Your task to perform on an android device: What's on my calendar tomorrow? Image 0: 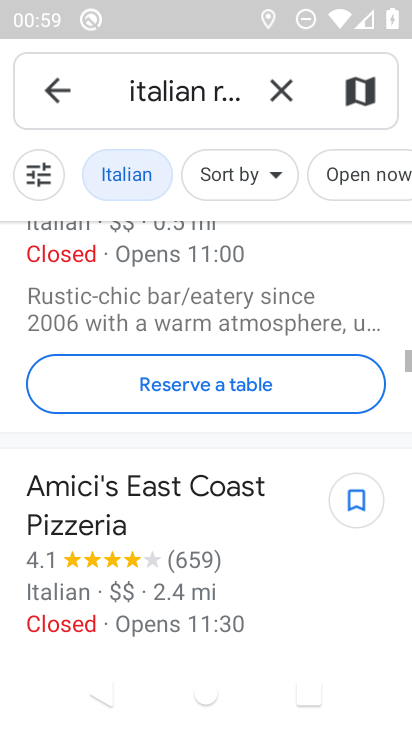
Step 0: drag from (219, 535) to (296, 38)
Your task to perform on an android device: What's on my calendar tomorrow? Image 1: 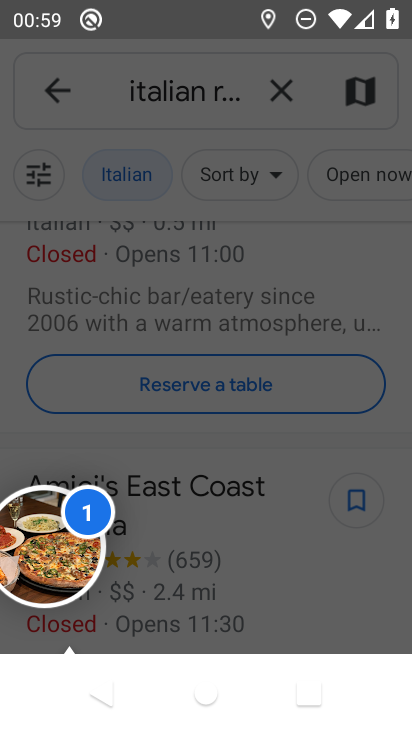
Step 1: press home button
Your task to perform on an android device: What's on my calendar tomorrow? Image 2: 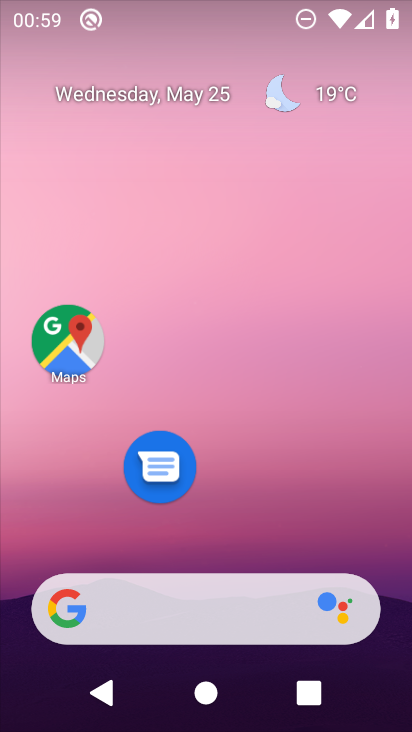
Step 2: drag from (230, 564) to (241, 75)
Your task to perform on an android device: What's on my calendar tomorrow? Image 3: 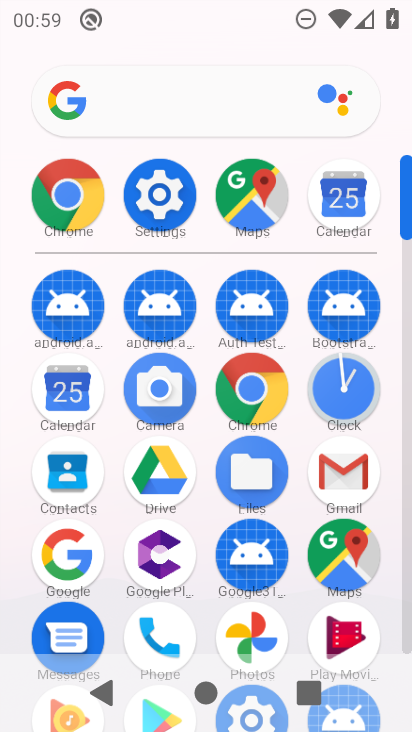
Step 3: click (73, 378)
Your task to perform on an android device: What's on my calendar tomorrow? Image 4: 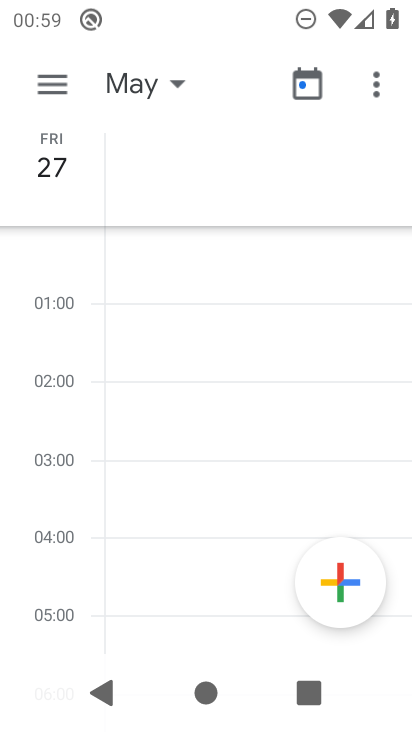
Step 4: click (182, 66)
Your task to perform on an android device: What's on my calendar tomorrow? Image 5: 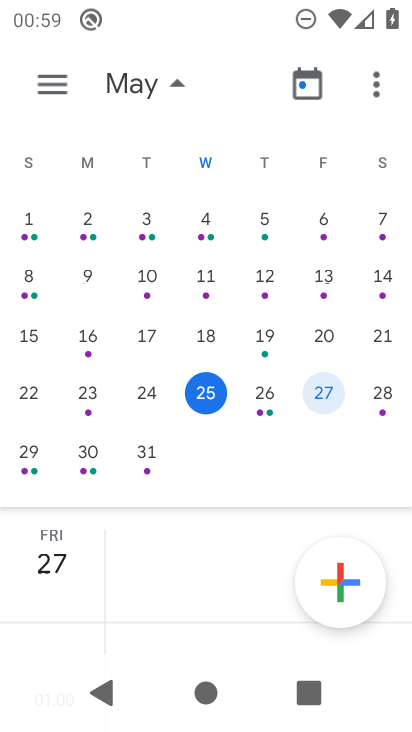
Step 5: click (268, 396)
Your task to perform on an android device: What's on my calendar tomorrow? Image 6: 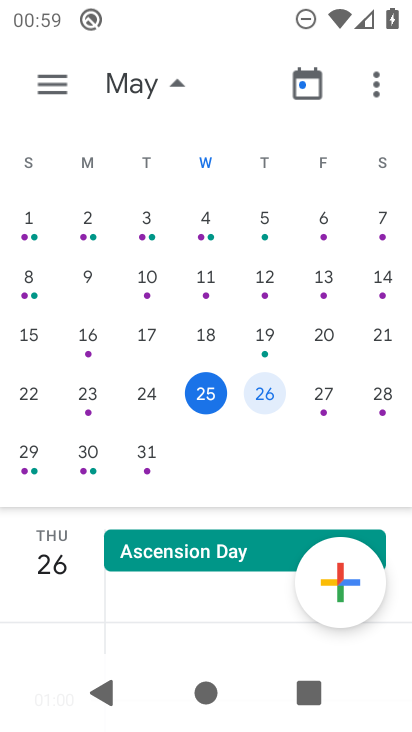
Step 6: task complete